Your task to perform on an android device: find which apps use the phone's location Image 0: 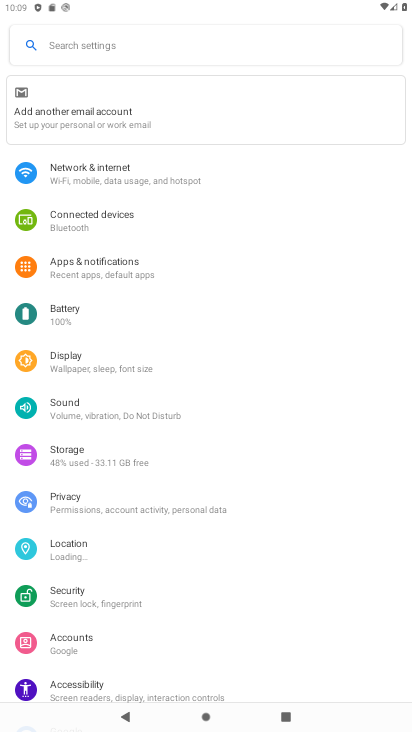
Step 0: click (94, 562)
Your task to perform on an android device: find which apps use the phone's location Image 1: 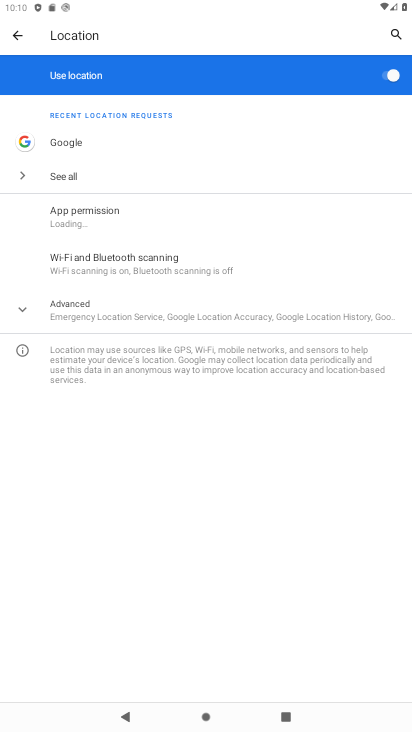
Step 1: click (115, 226)
Your task to perform on an android device: find which apps use the phone's location Image 2: 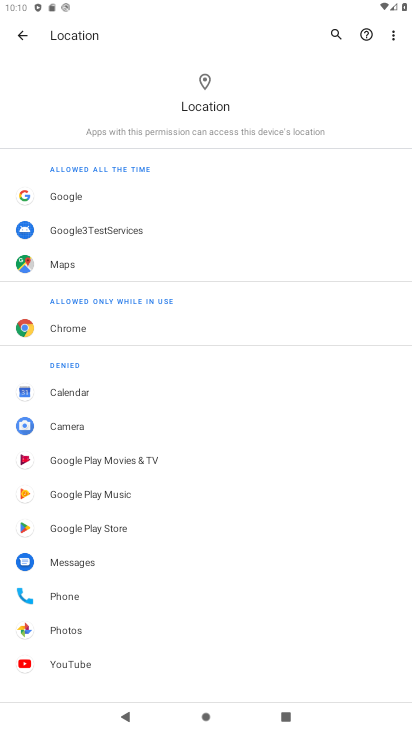
Step 2: task complete